Your task to perform on an android device: Do I have any events this weekend? Image 0: 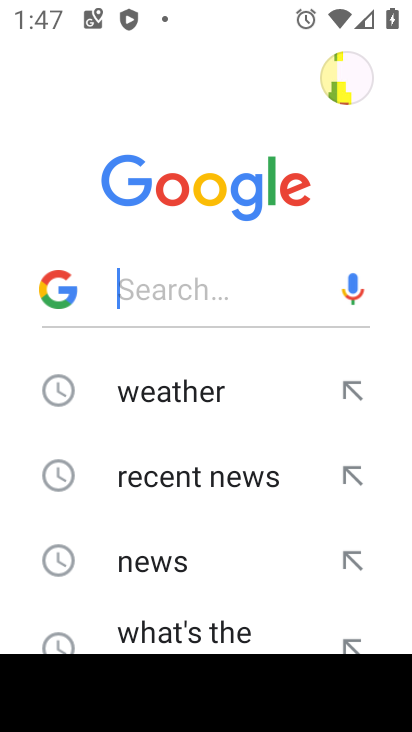
Step 0: press home button
Your task to perform on an android device: Do I have any events this weekend? Image 1: 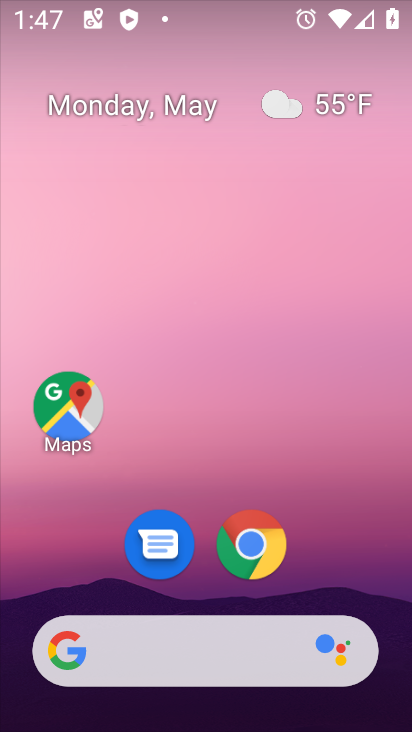
Step 1: drag from (397, 616) to (341, 102)
Your task to perform on an android device: Do I have any events this weekend? Image 2: 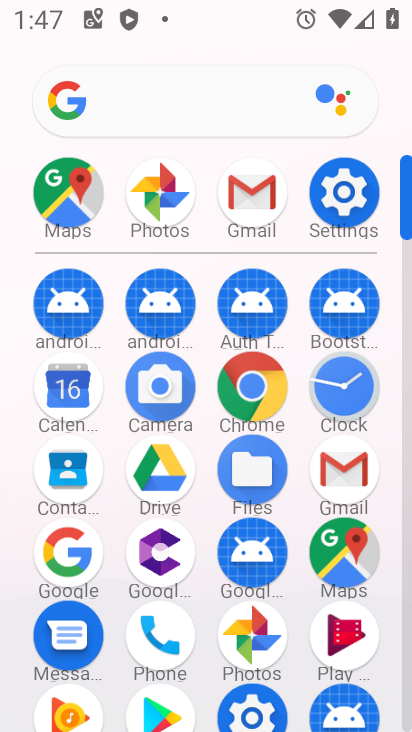
Step 2: click (64, 391)
Your task to perform on an android device: Do I have any events this weekend? Image 3: 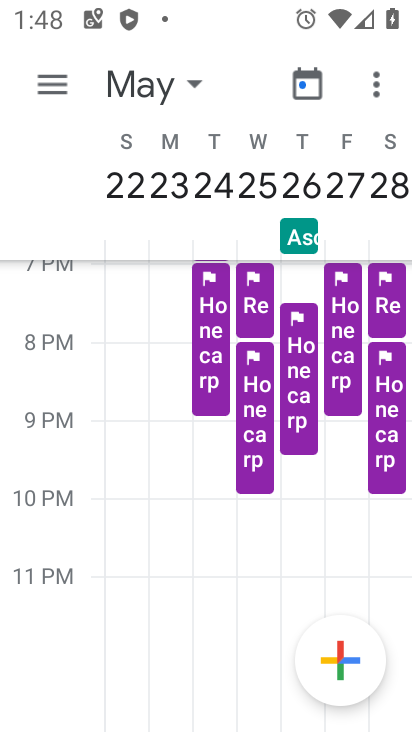
Step 3: click (53, 84)
Your task to perform on an android device: Do I have any events this weekend? Image 4: 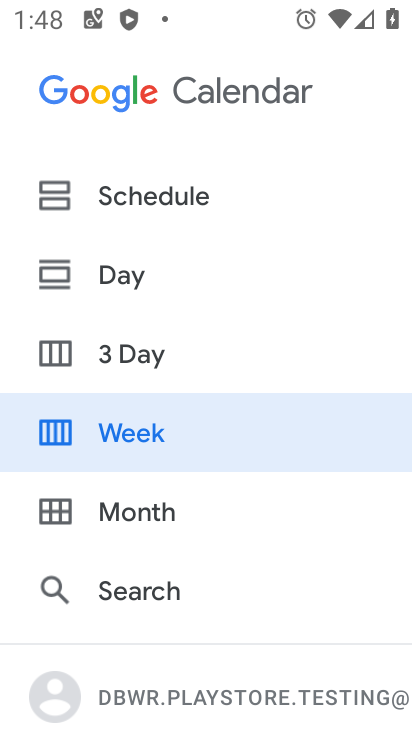
Step 4: click (132, 430)
Your task to perform on an android device: Do I have any events this weekend? Image 5: 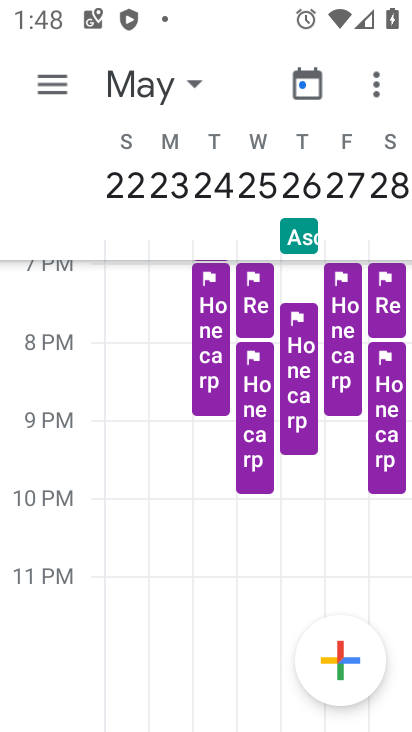
Step 5: click (186, 76)
Your task to perform on an android device: Do I have any events this weekend? Image 6: 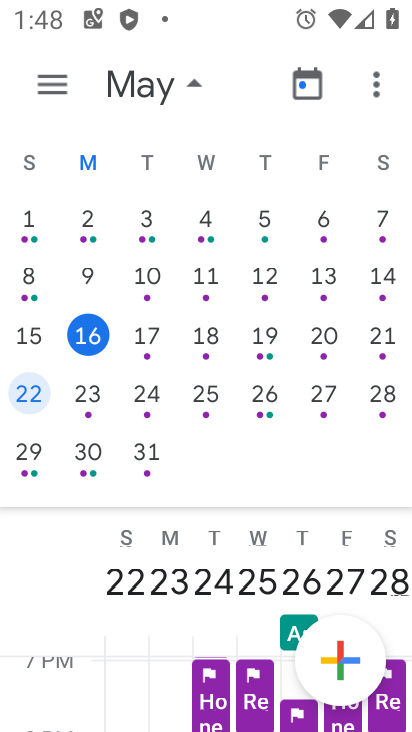
Step 6: click (86, 337)
Your task to perform on an android device: Do I have any events this weekend? Image 7: 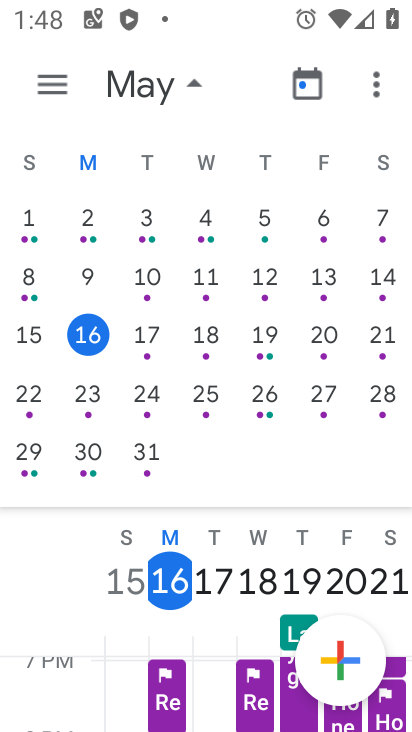
Step 7: task complete